Your task to perform on an android device: install app "Facebook Messenger" Image 0: 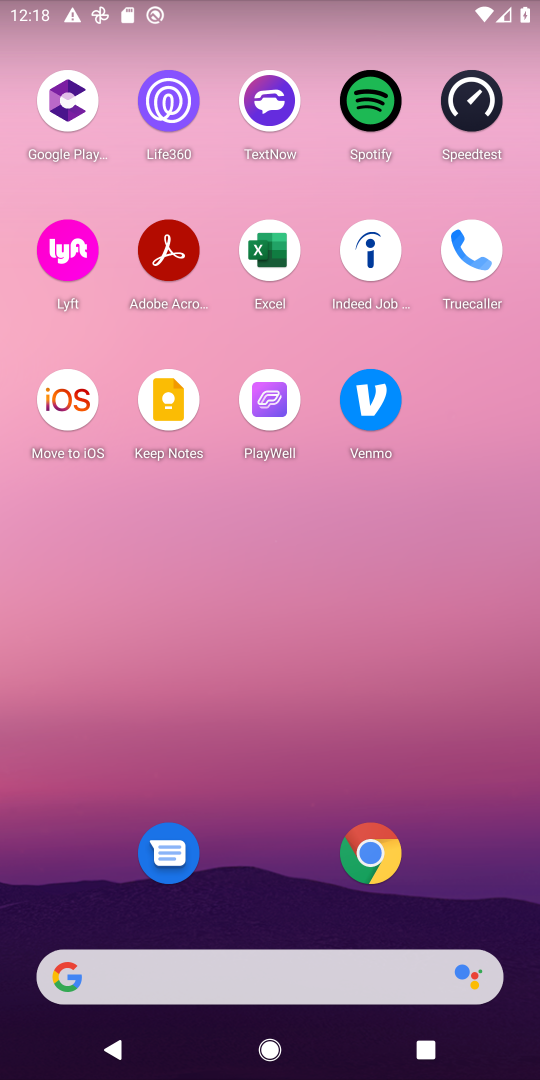
Step 0: drag from (284, 890) to (284, 440)
Your task to perform on an android device: install app "Facebook Messenger" Image 1: 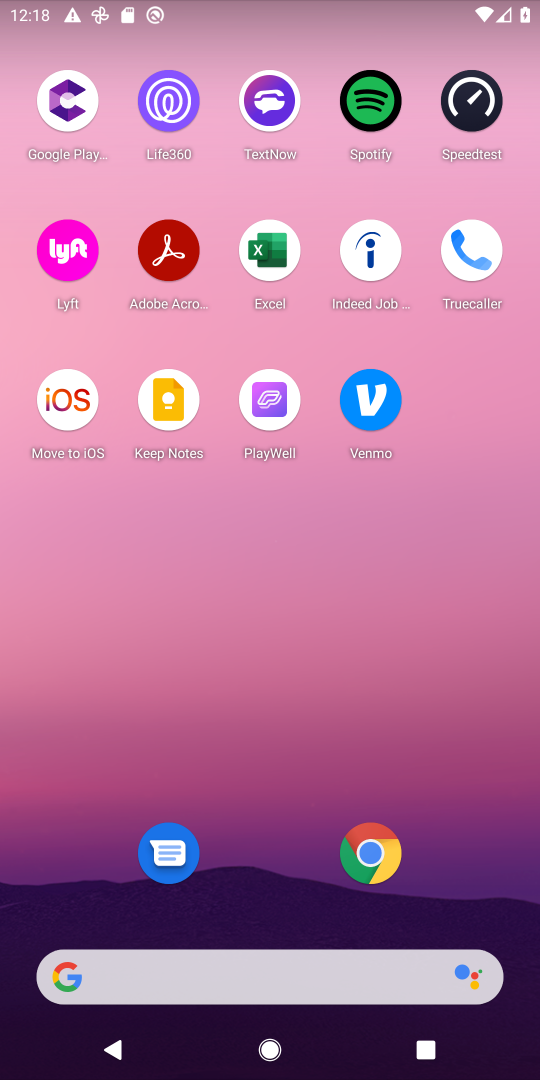
Step 1: drag from (301, 868) to (342, 36)
Your task to perform on an android device: install app "Facebook Messenger" Image 2: 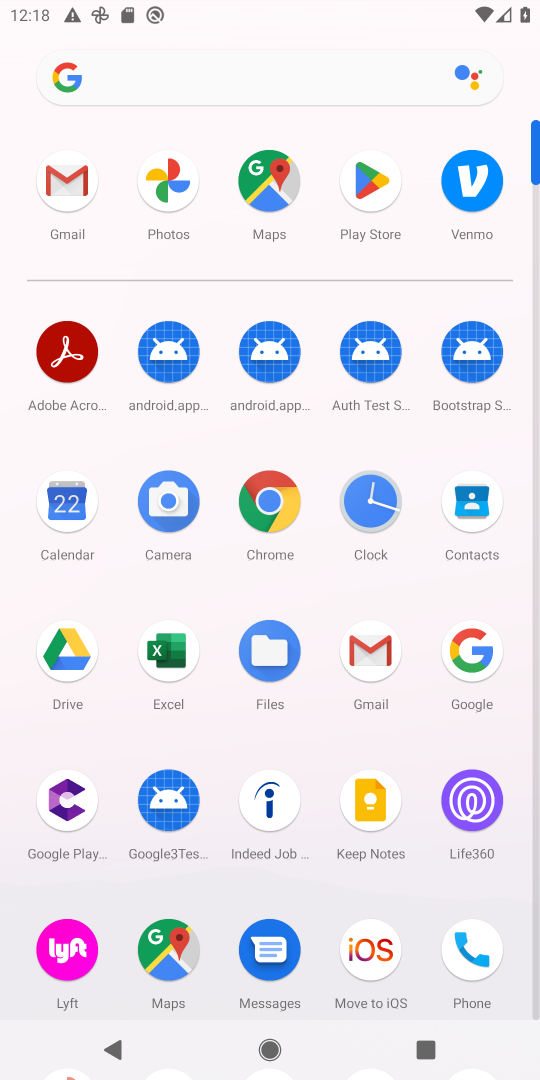
Step 2: click (357, 187)
Your task to perform on an android device: install app "Facebook Messenger" Image 3: 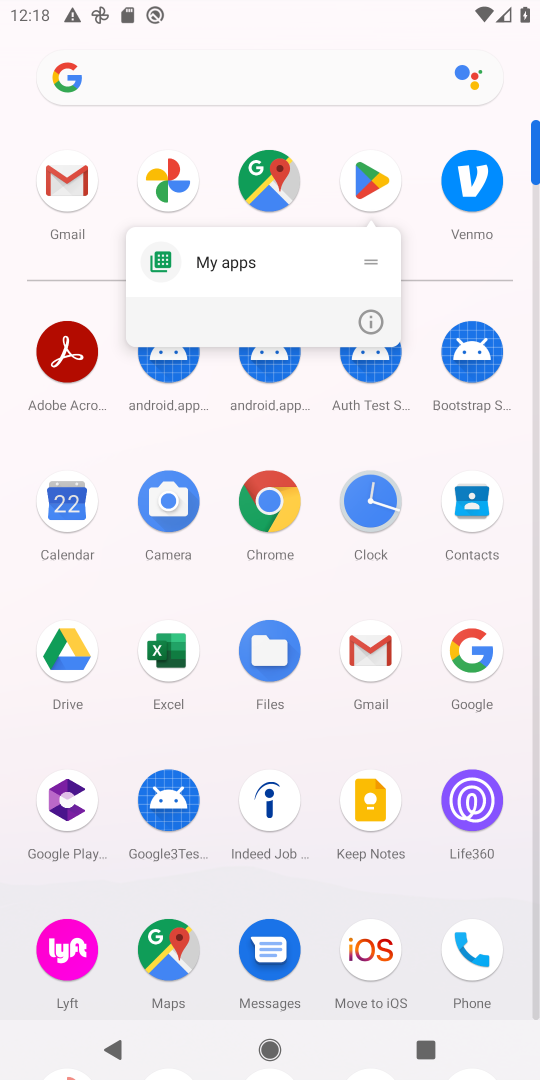
Step 3: click (368, 170)
Your task to perform on an android device: install app "Facebook Messenger" Image 4: 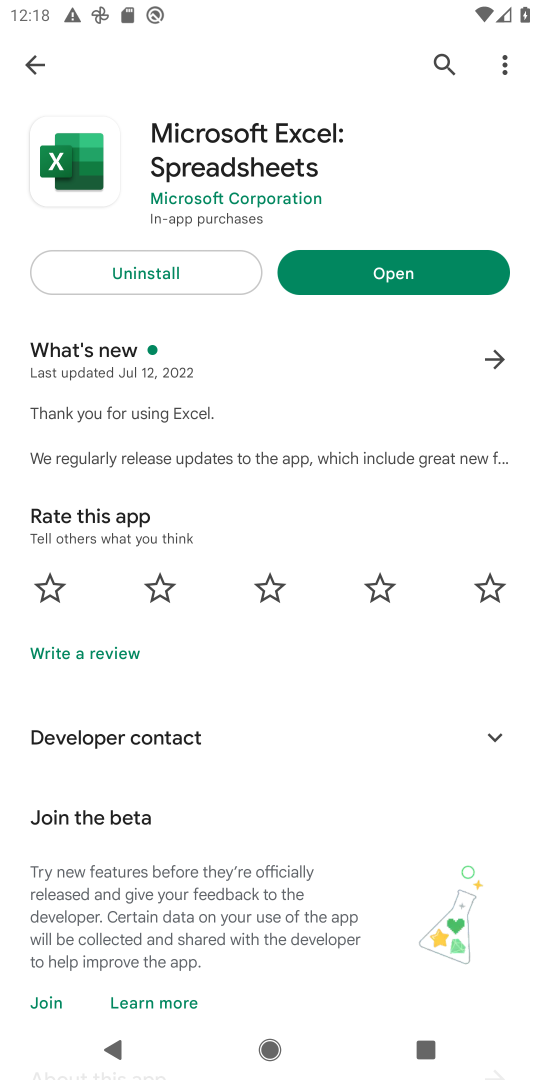
Step 4: press home button
Your task to perform on an android device: install app "Facebook Messenger" Image 5: 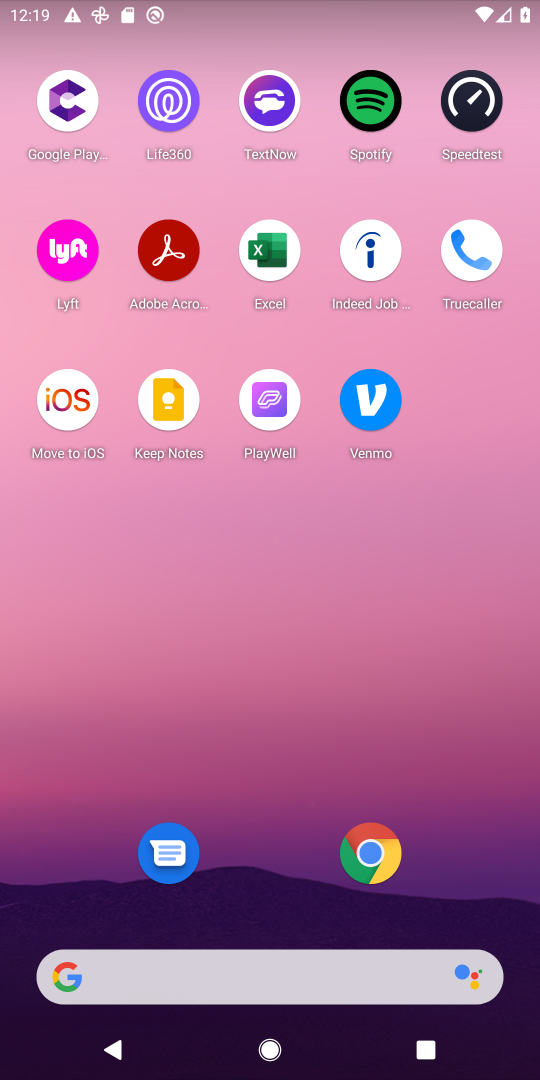
Step 5: drag from (389, 689) to (389, 117)
Your task to perform on an android device: install app "Facebook Messenger" Image 6: 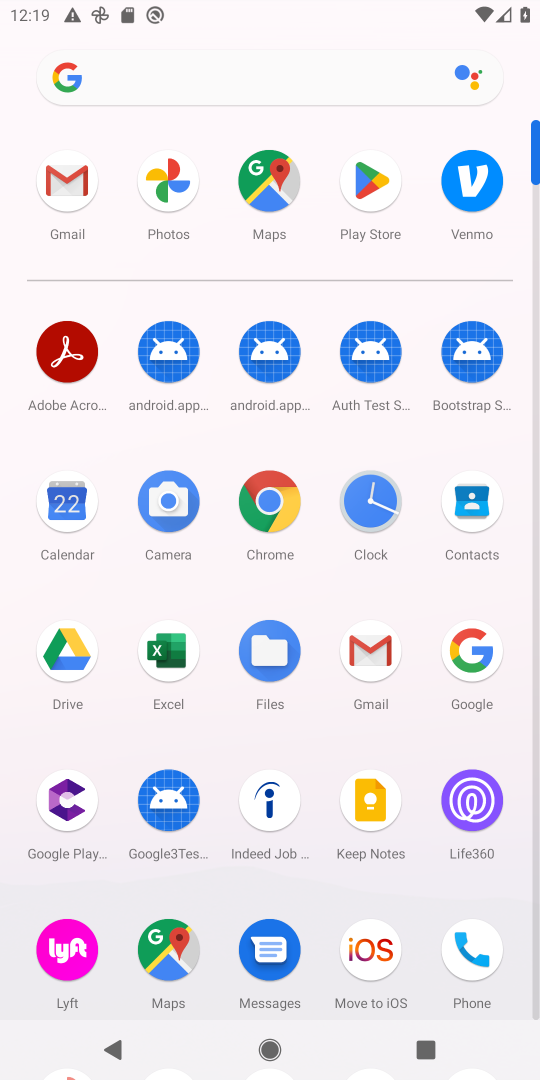
Step 6: click (356, 154)
Your task to perform on an android device: install app "Facebook Messenger" Image 7: 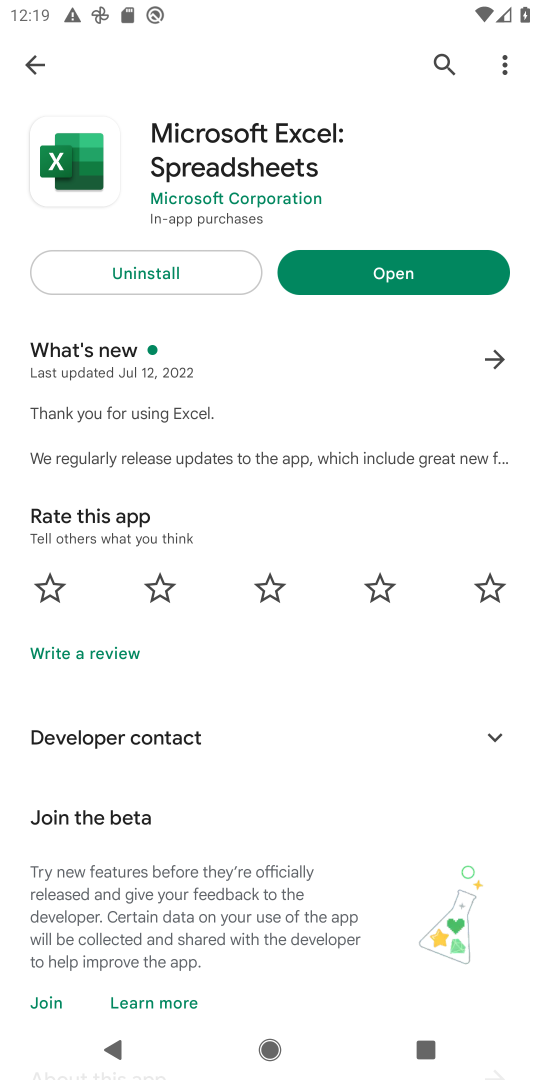
Step 7: click (43, 80)
Your task to perform on an android device: install app "Facebook Messenger" Image 8: 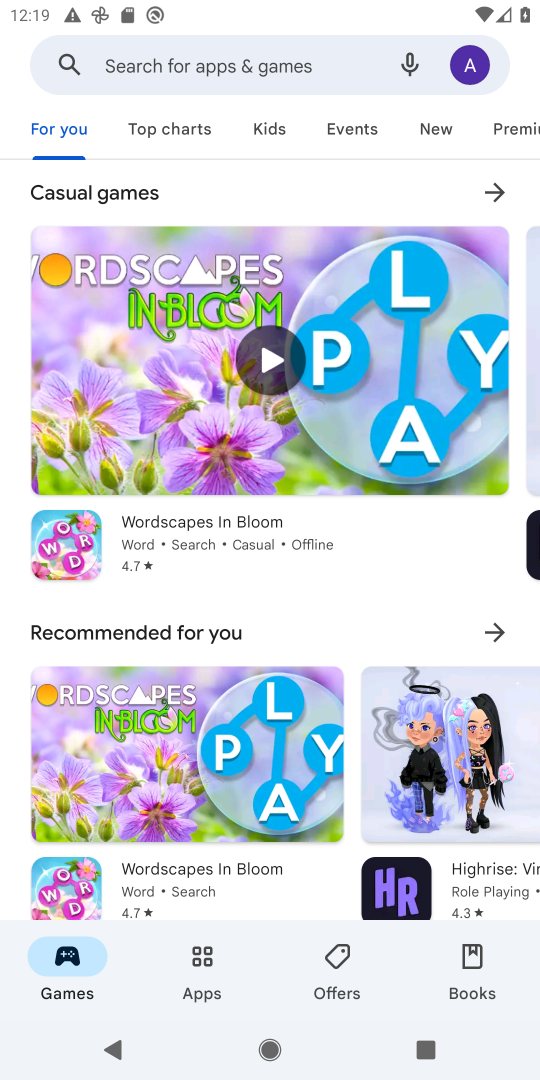
Step 8: click (207, 54)
Your task to perform on an android device: install app "Facebook Messenger" Image 9: 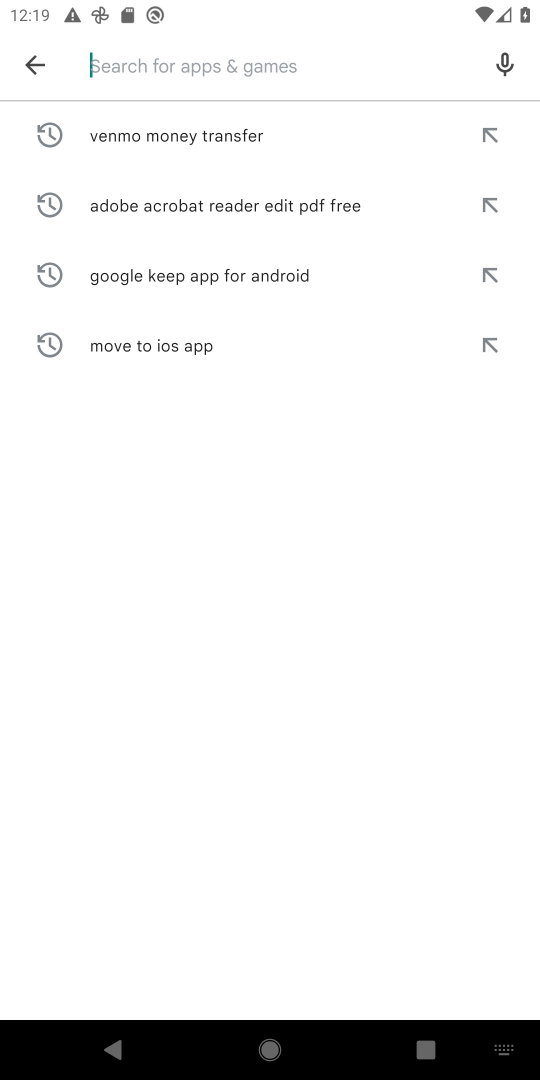
Step 9: type "Facebook Messenger "
Your task to perform on an android device: install app "Facebook Messenger" Image 10: 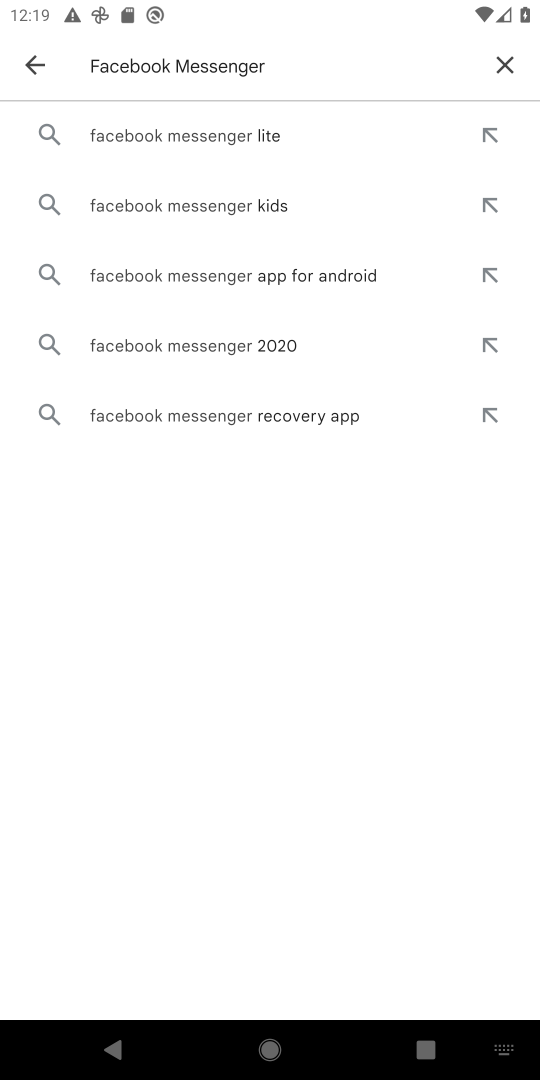
Step 10: click (216, 137)
Your task to perform on an android device: install app "Facebook Messenger" Image 11: 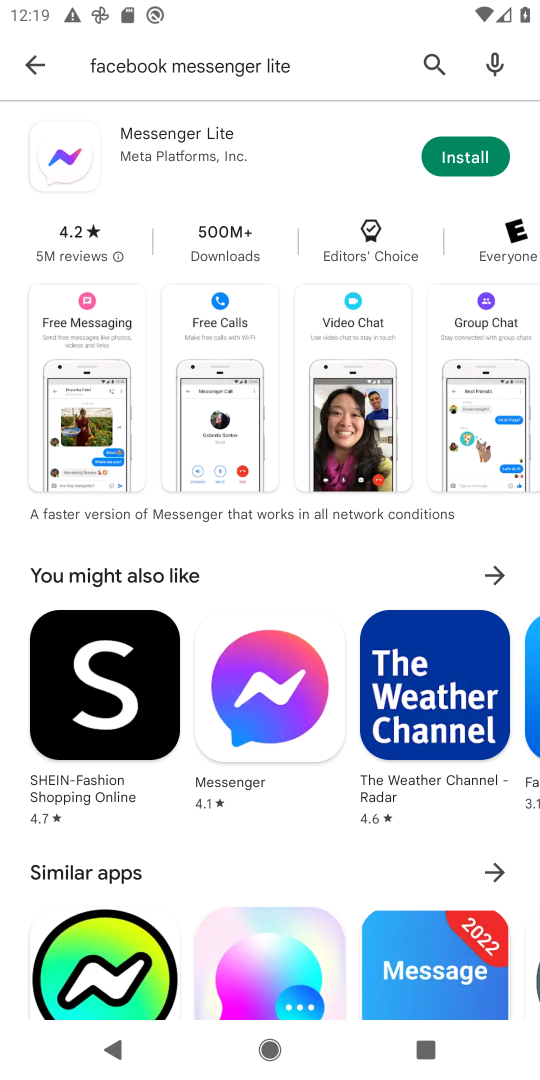
Step 11: click (456, 138)
Your task to perform on an android device: install app "Facebook Messenger" Image 12: 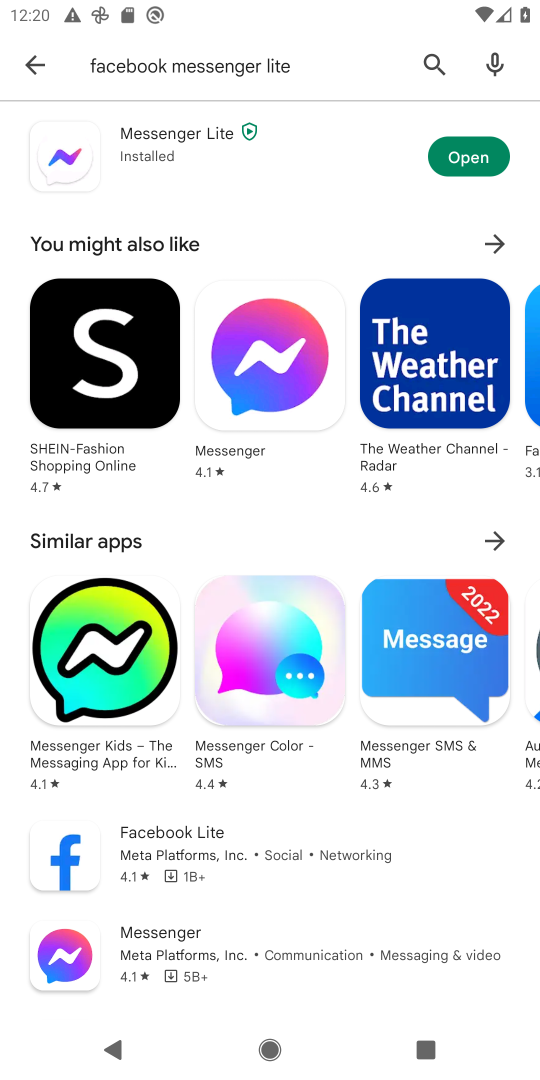
Step 12: click (456, 154)
Your task to perform on an android device: install app "Facebook Messenger" Image 13: 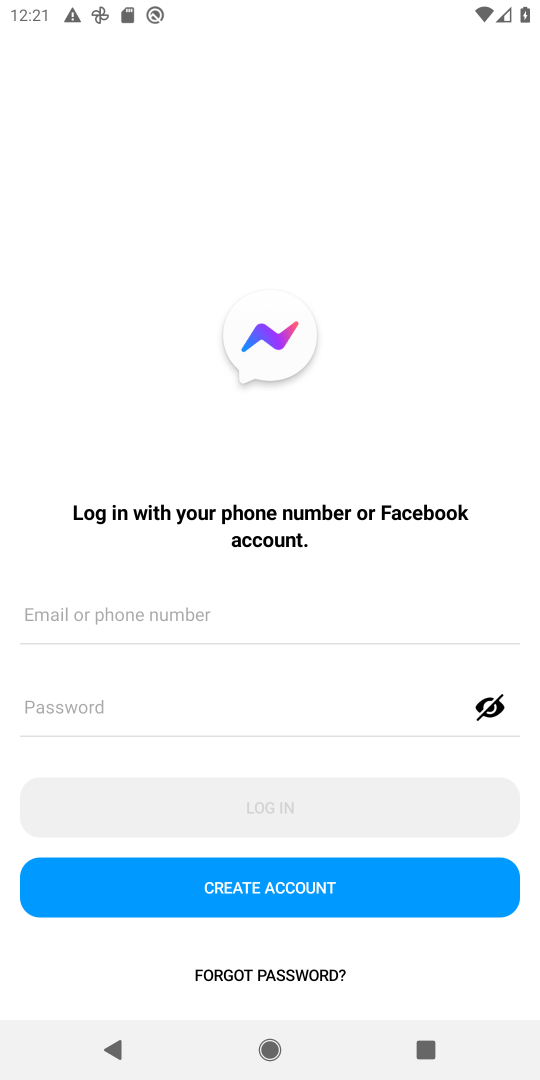
Step 13: task complete